Your task to perform on an android device: Open privacy settings Image 0: 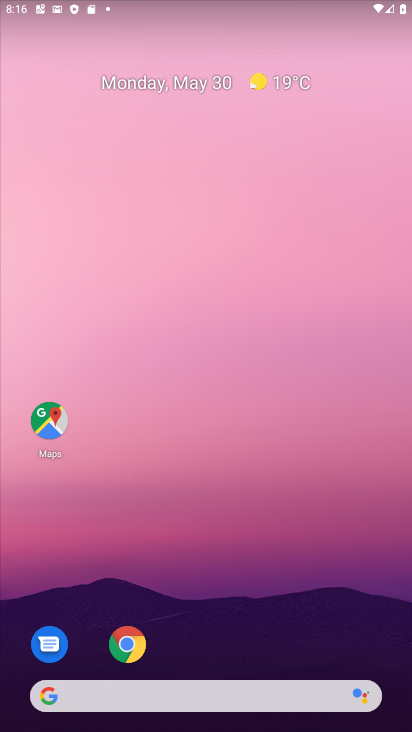
Step 0: drag from (160, 650) to (186, 294)
Your task to perform on an android device: Open privacy settings Image 1: 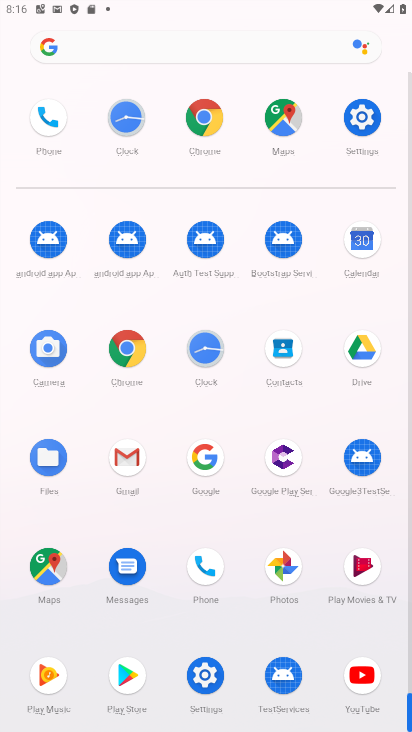
Step 1: click (353, 114)
Your task to perform on an android device: Open privacy settings Image 2: 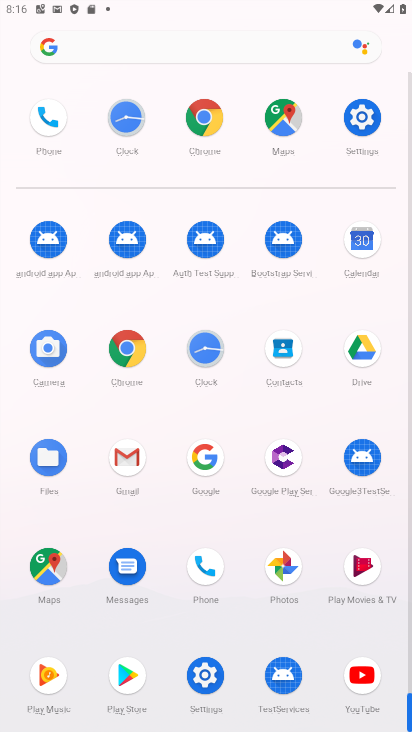
Step 2: click (353, 114)
Your task to perform on an android device: Open privacy settings Image 3: 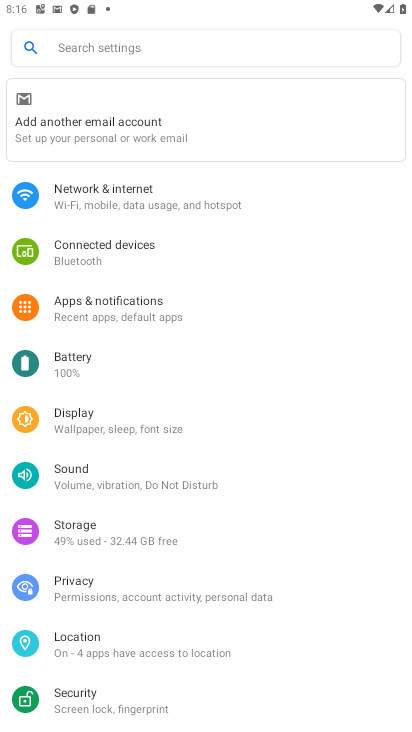
Step 3: click (136, 589)
Your task to perform on an android device: Open privacy settings Image 4: 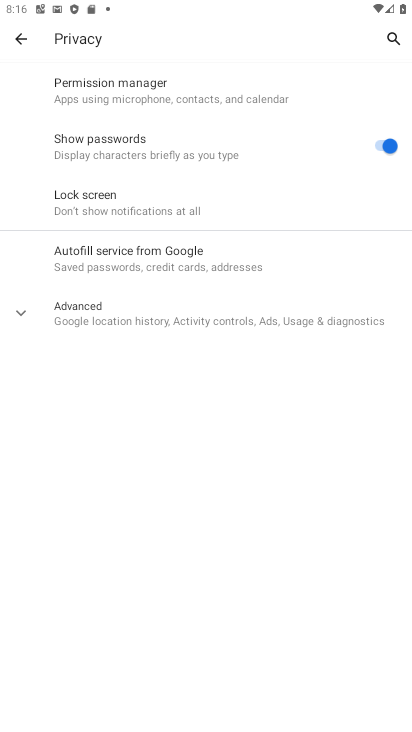
Step 4: task complete